Your task to perform on an android device: change the clock style Image 0: 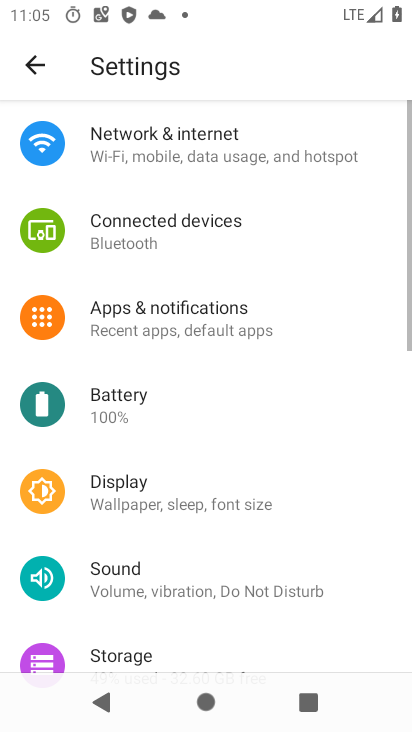
Step 0: press home button
Your task to perform on an android device: change the clock style Image 1: 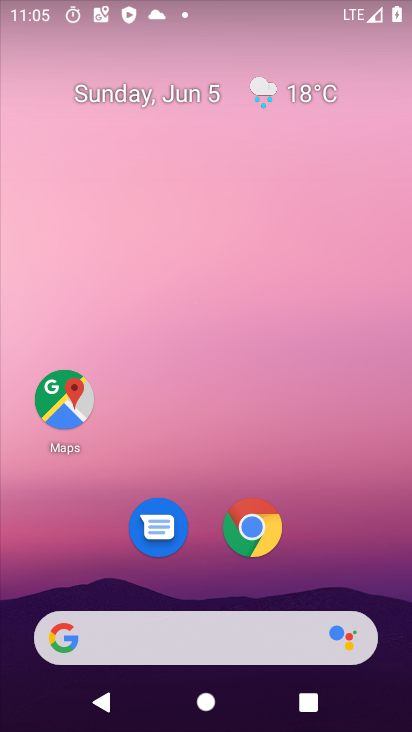
Step 1: drag from (322, 380) to (252, 13)
Your task to perform on an android device: change the clock style Image 2: 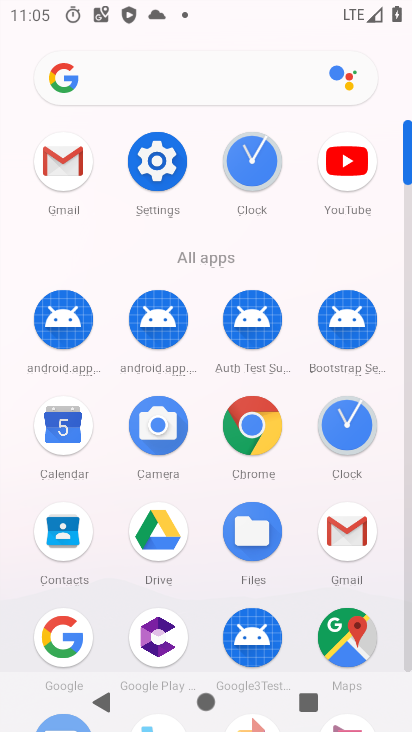
Step 2: click (262, 163)
Your task to perform on an android device: change the clock style Image 3: 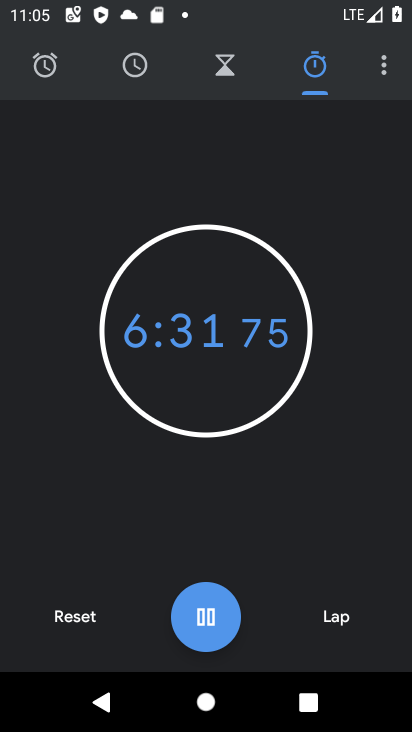
Step 3: click (380, 74)
Your task to perform on an android device: change the clock style Image 4: 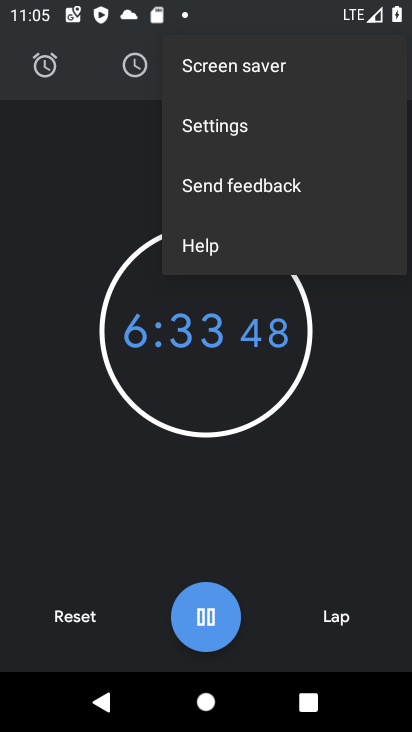
Step 4: click (260, 113)
Your task to perform on an android device: change the clock style Image 5: 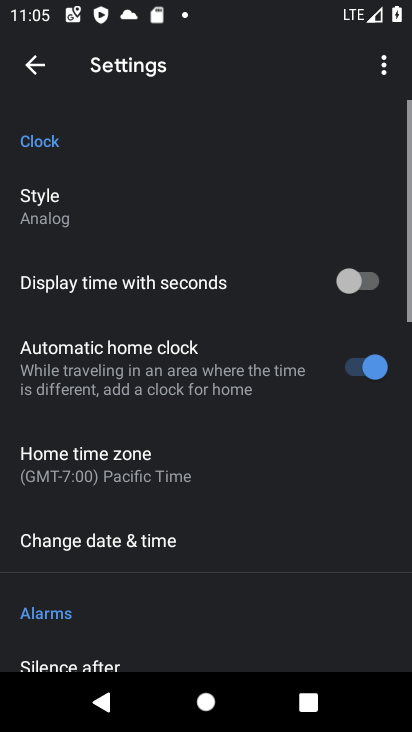
Step 5: click (91, 214)
Your task to perform on an android device: change the clock style Image 6: 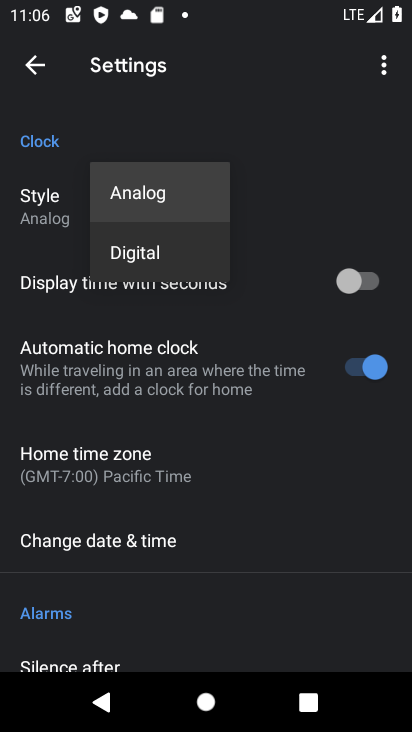
Step 6: click (186, 267)
Your task to perform on an android device: change the clock style Image 7: 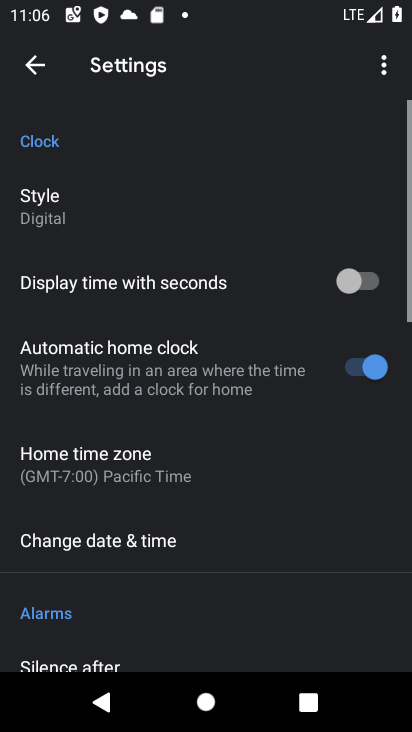
Step 7: task complete